Your task to perform on an android device: read, delete, or share a saved page in the chrome app Image 0: 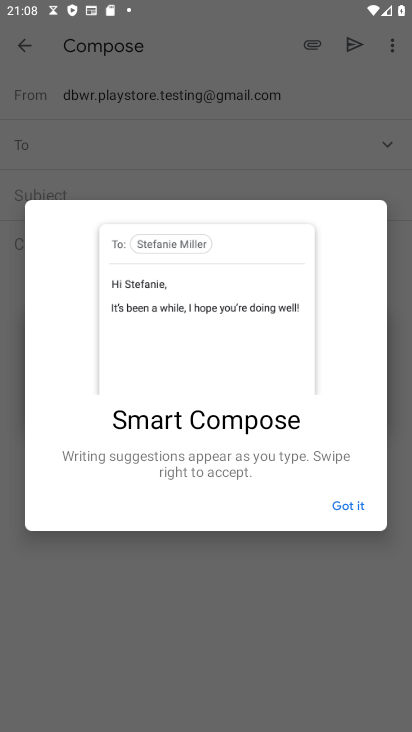
Step 0: press home button
Your task to perform on an android device: read, delete, or share a saved page in the chrome app Image 1: 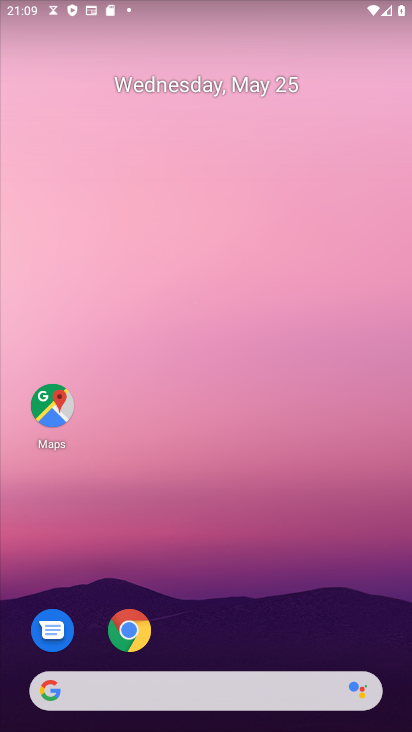
Step 1: click (134, 627)
Your task to perform on an android device: read, delete, or share a saved page in the chrome app Image 2: 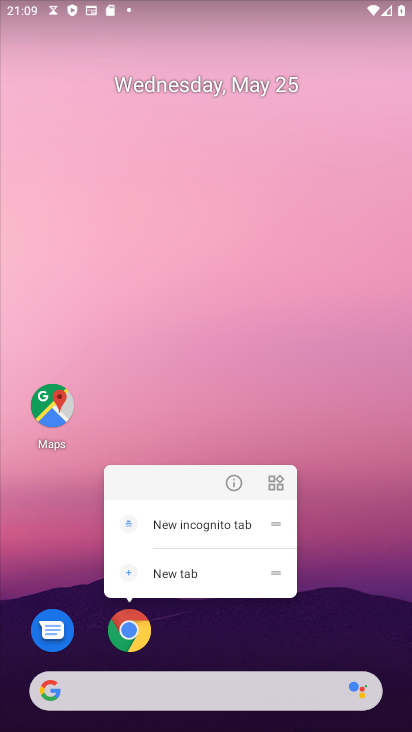
Step 2: click (134, 624)
Your task to perform on an android device: read, delete, or share a saved page in the chrome app Image 3: 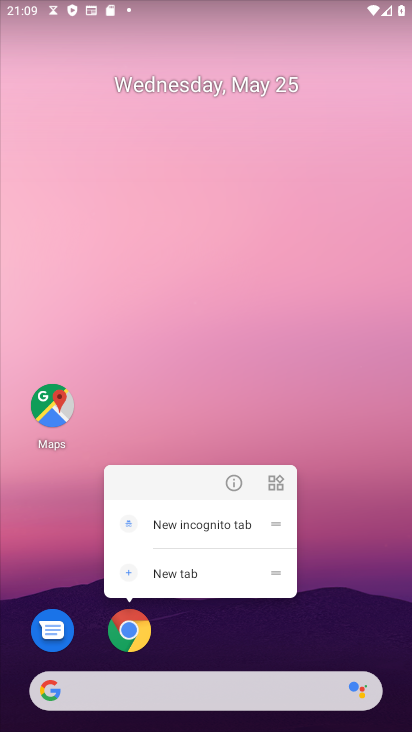
Step 3: click (134, 624)
Your task to perform on an android device: read, delete, or share a saved page in the chrome app Image 4: 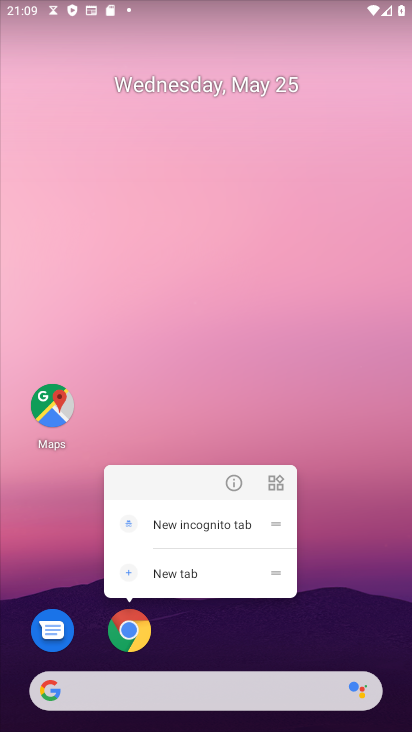
Step 4: click (122, 635)
Your task to perform on an android device: read, delete, or share a saved page in the chrome app Image 5: 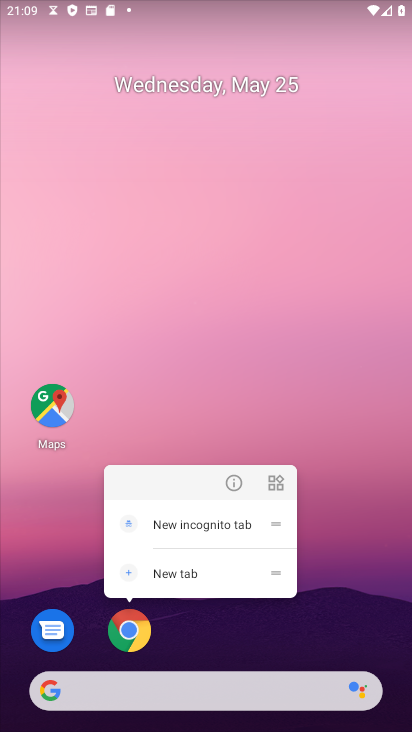
Step 5: click (130, 642)
Your task to perform on an android device: read, delete, or share a saved page in the chrome app Image 6: 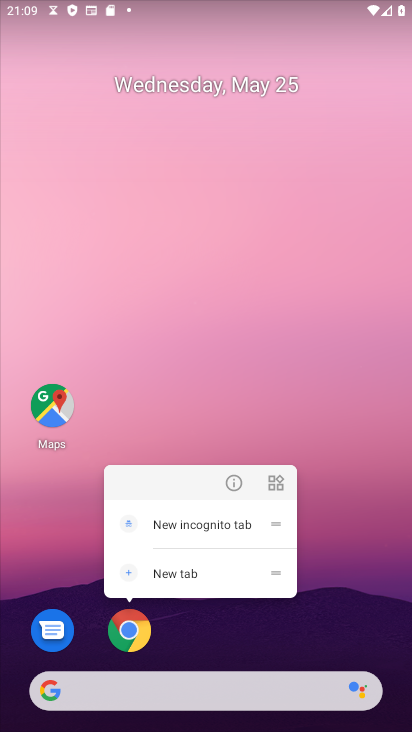
Step 6: click (125, 630)
Your task to perform on an android device: read, delete, or share a saved page in the chrome app Image 7: 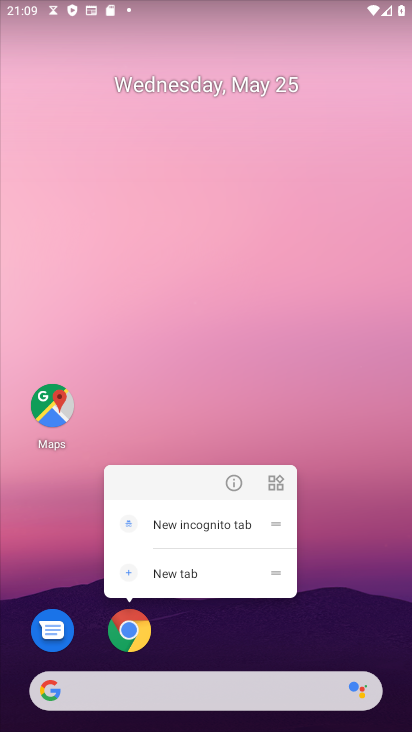
Step 7: click (126, 629)
Your task to perform on an android device: read, delete, or share a saved page in the chrome app Image 8: 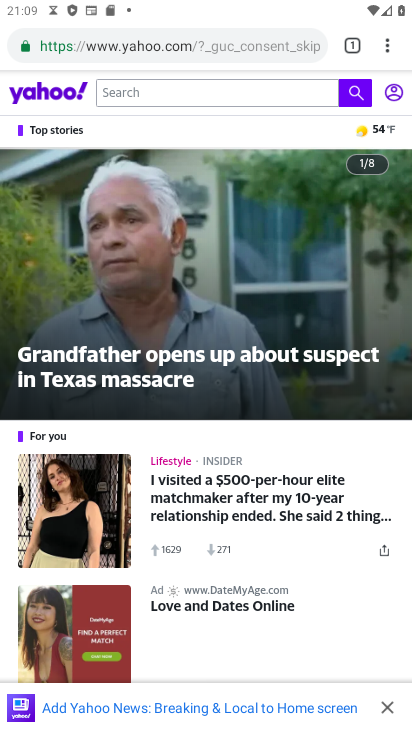
Step 8: click (382, 35)
Your task to perform on an android device: read, delete, or share a saved page in the chrome app Image 9: 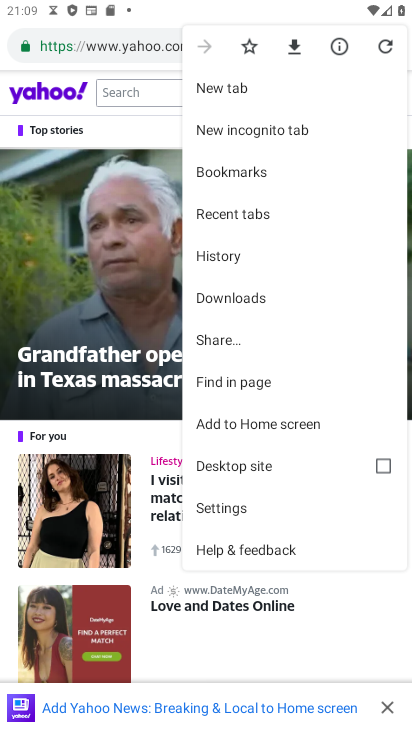
Step 9: click (243, 297)
Your task to perform on an android device: read, delete, or share a saved page in the chrome app Image 10: 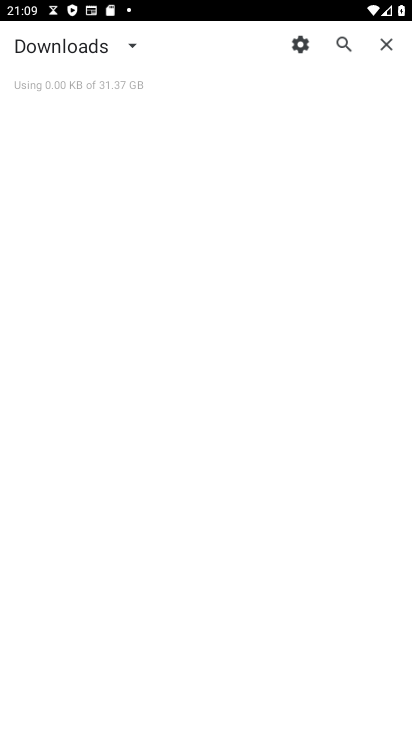
Step 10: click (132, 43)
Your task to perform on an android device: read, delete, or share a saved page in the chrome app Image 11: 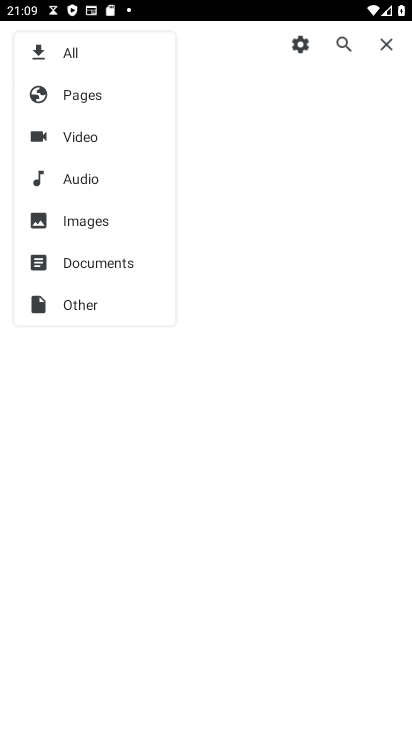
Step 11: click (92, 97)
Your task to perform on an android device: read, delete, or share a saved page in the chrome app Image 12: 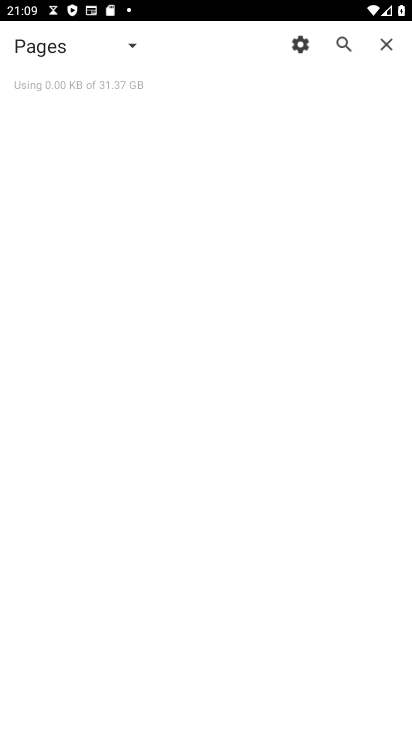
Step 12: task complete